Your task to perform on an android device: see sites visited before in the chrome app Image 0: 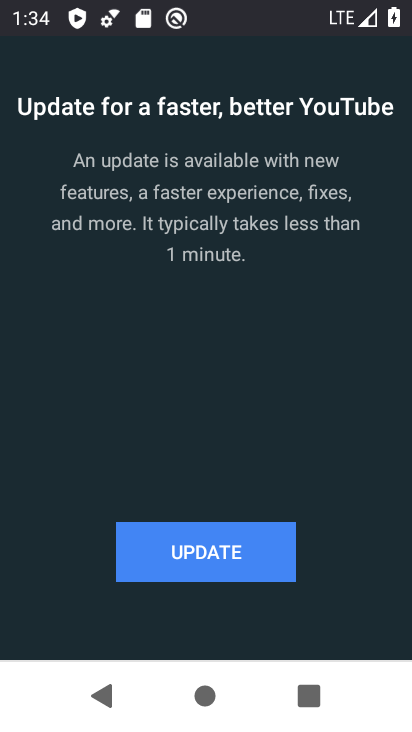
Step 0: drag from (220, 648) to (214, 388)
Your task to perform on an android device: see sites visited before in the chrome app Image 1: 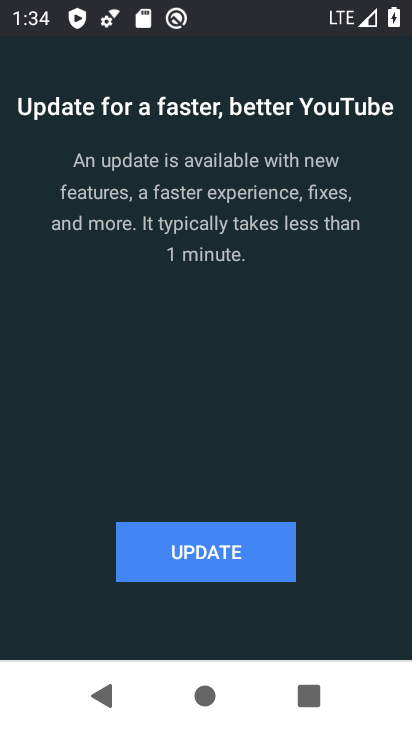
Step 1: press home button
Your task to perform on an android device: see sites visited before in the chrome app Image 2: 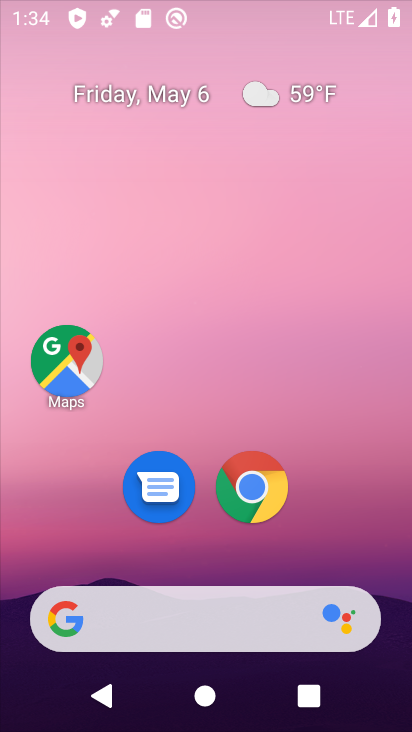
Step 2: drag from (205, 591) to (274, 60)
Your task to perform on an android device: see sites visited before in the chrome app Image 3: 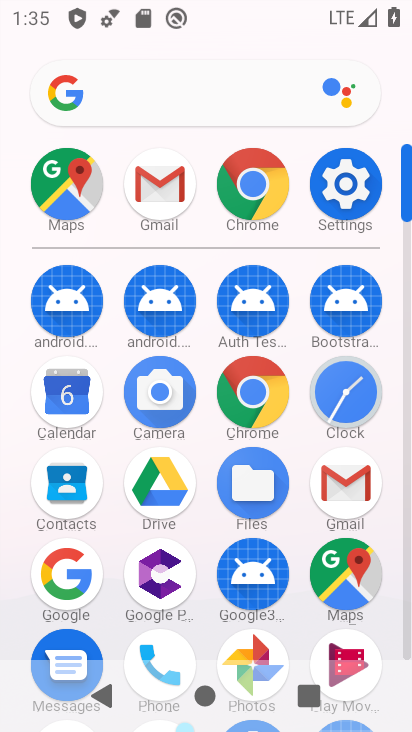
Step 3: click (252, 397)
Your task to perform on an android device: see sites visited before in the chrome app Image 4: 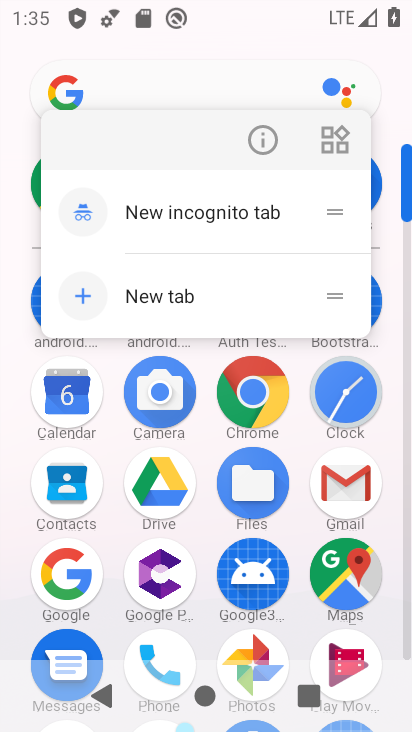
Step 4: click (270, 394)
Your task to perform on an android device: see sites visited before in the chrome app Image 5: 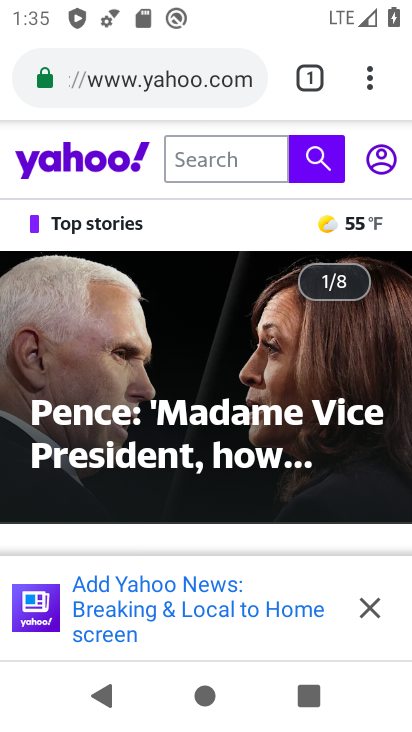
Step 5: click (373, 70)
Your task to perform on an android device: see sites visited before in the chrome app Image 6: 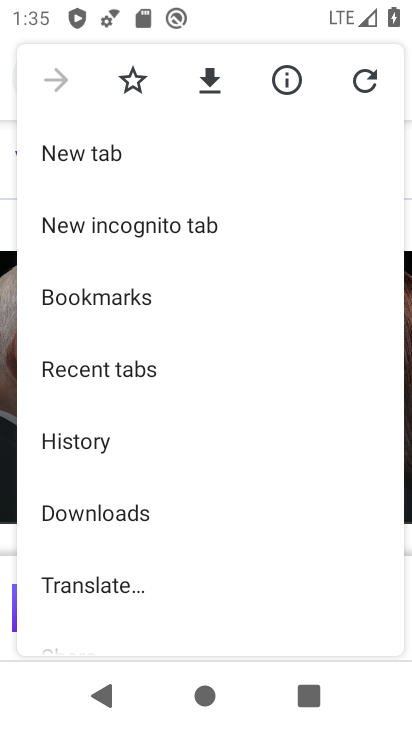
Step 6: click (99, 448)
Your task to perform on an android device: see sites visited before in the chrome app Image 7: 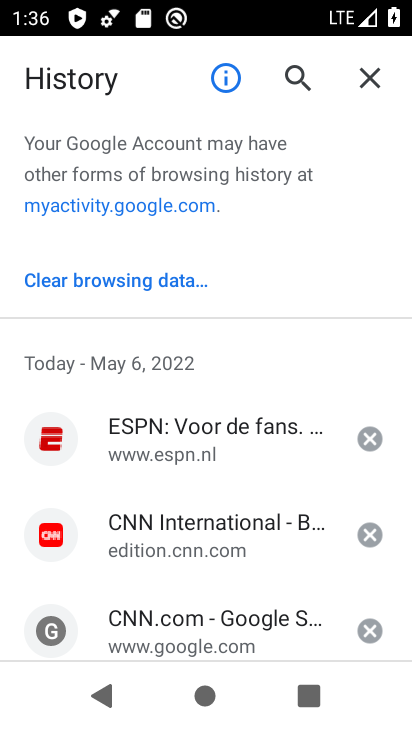
Step 7: task complete